Your task to perform on an android device: search for starred emails in the gmail app Image 0: 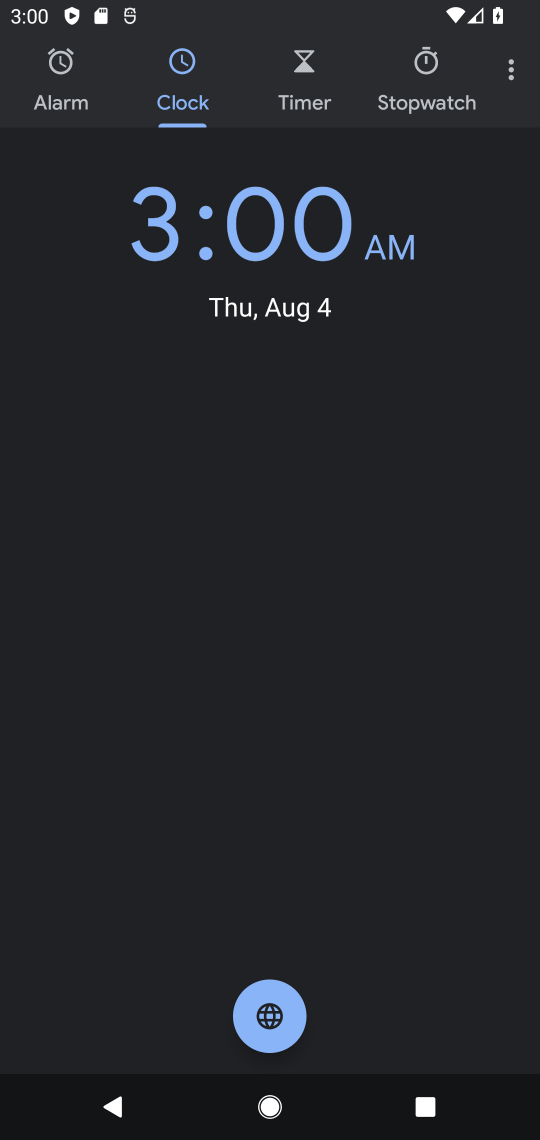
Step 0: press home button
Your task to perform on an android device: search for starred emails in the gmail app Image 1: 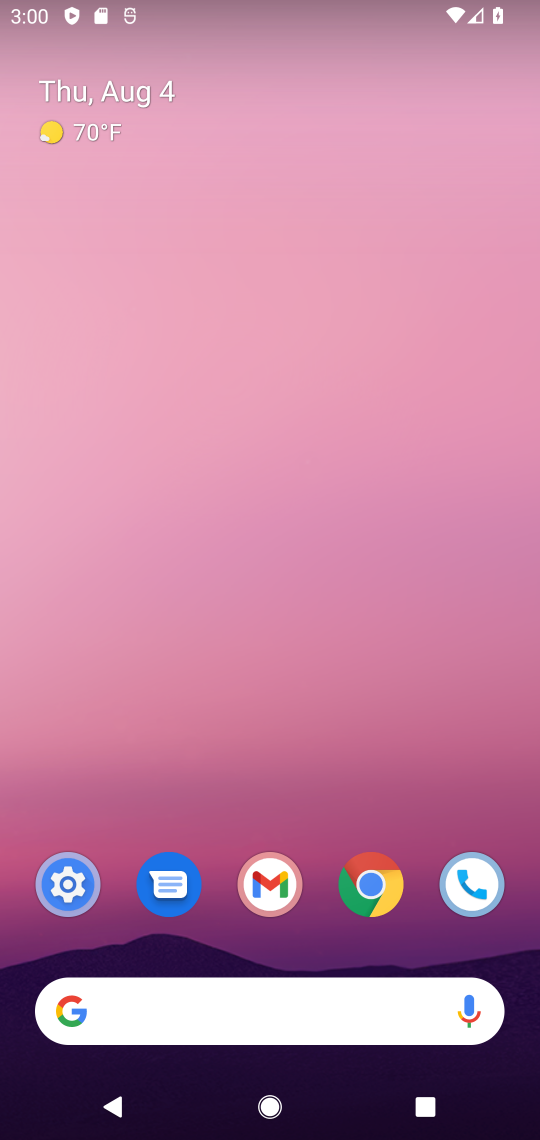
Step 1: drag from (203, 918) to (237, 286)
Your task to perform on an android device: search for starred emails in the gmail app Image 2: 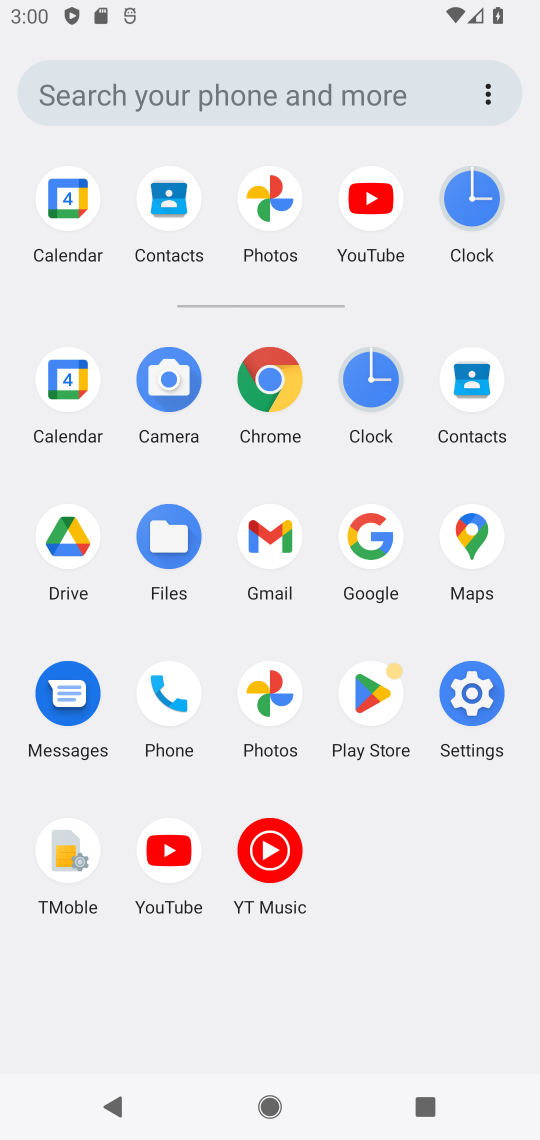
Step 2: click (284, 543)
Your task to perform on an android device: search for starred emails in the gmail app Image 3: 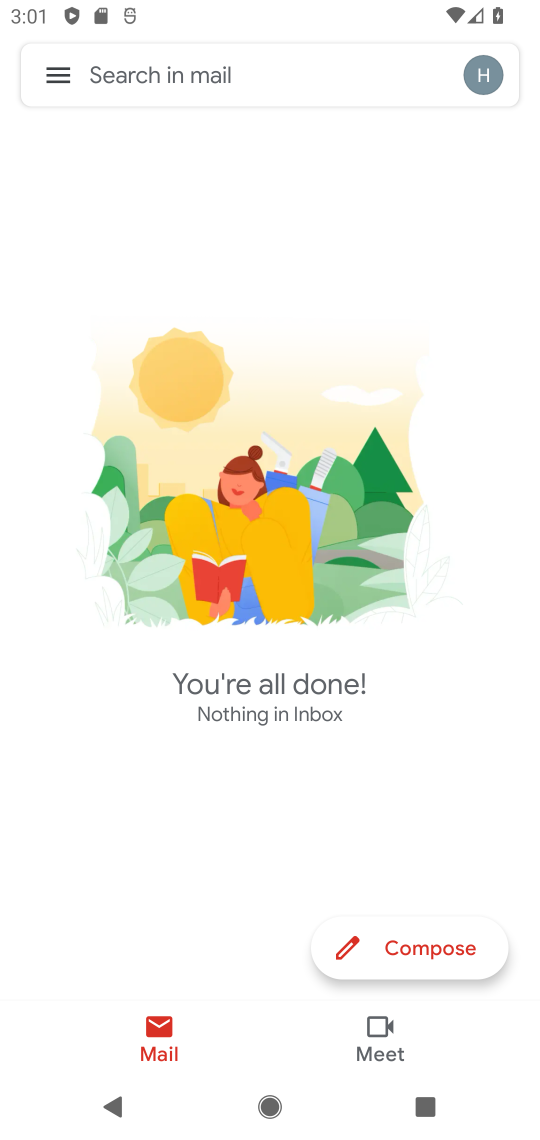
Step 3: click (55, 66)
Your task to perform on an android device: search for starred emails in the gmail app Image 4: 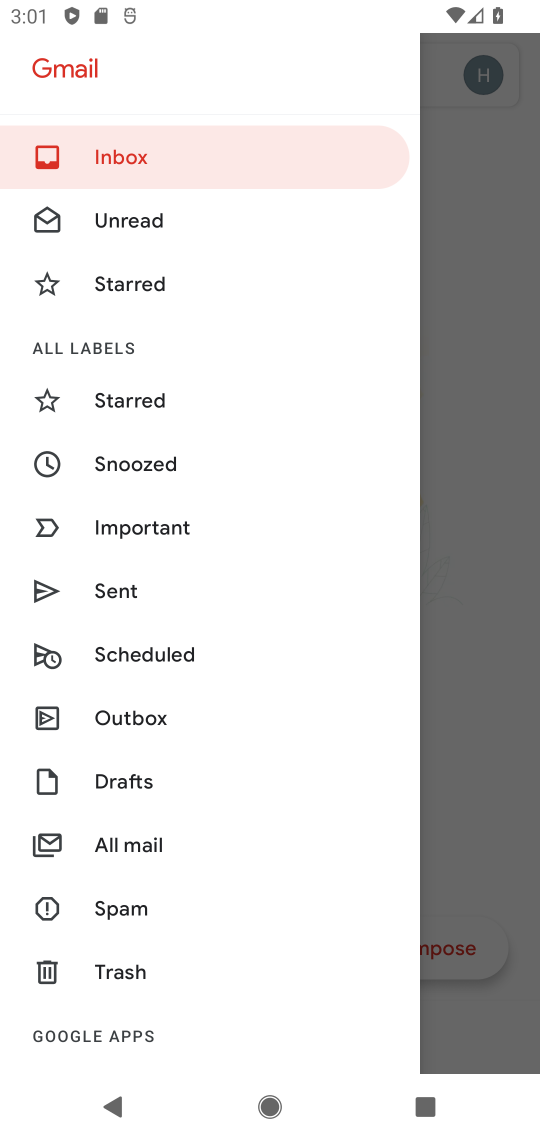
Step 4: click (104, 279)
Your task to perform on an android device: search for starred emails in the gmail app Image 5: 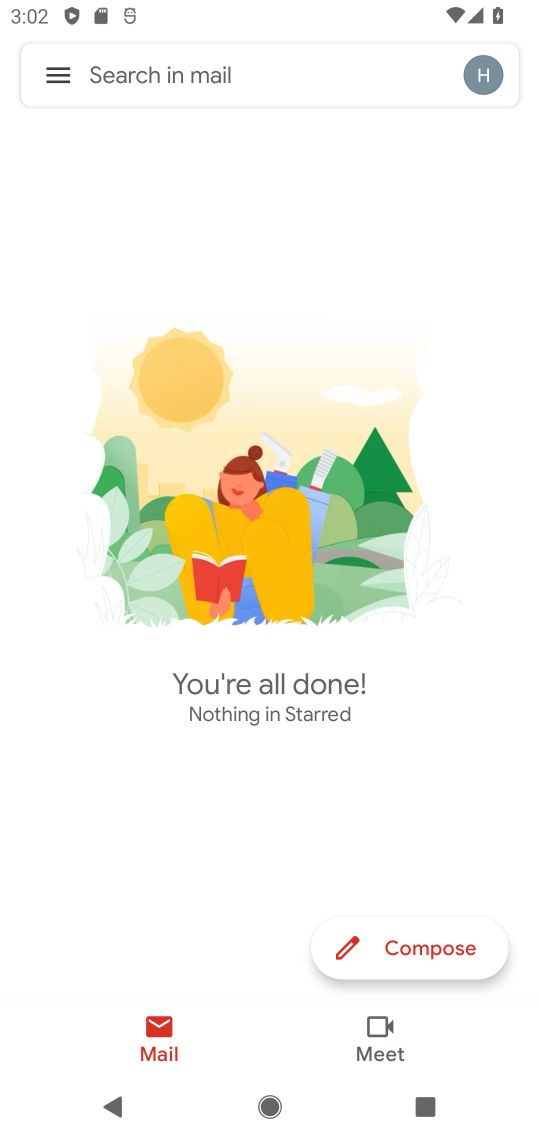
Step 5: task complete